Your task to perform on an android device: see creations saved in the google photos Image 0: 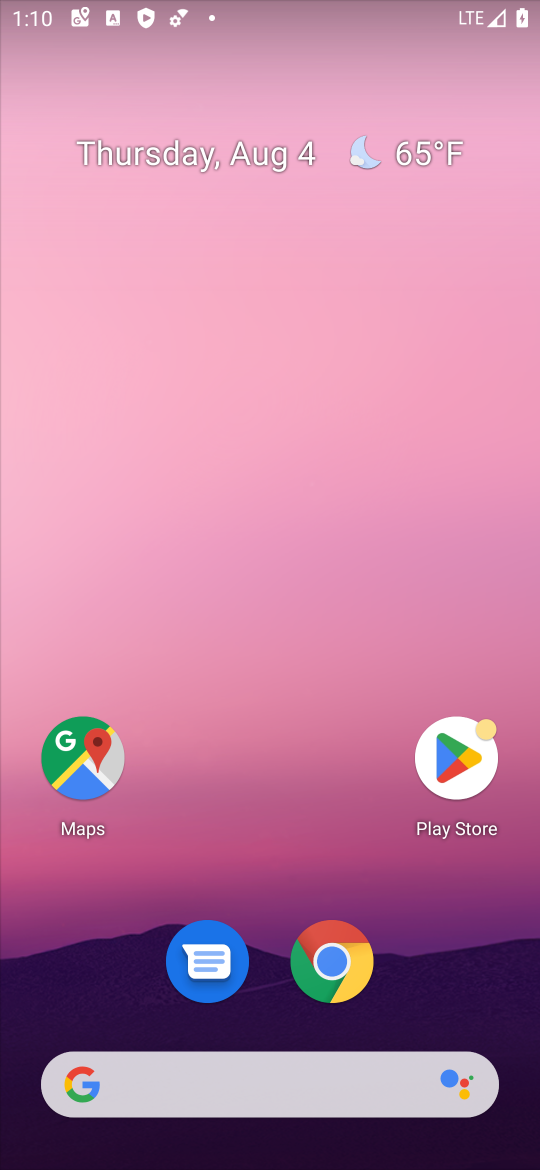
Step 0: drag from (290, 824) to (256, 50)
Your task to perform on an android device: see creations saved in the google photos Image 1: 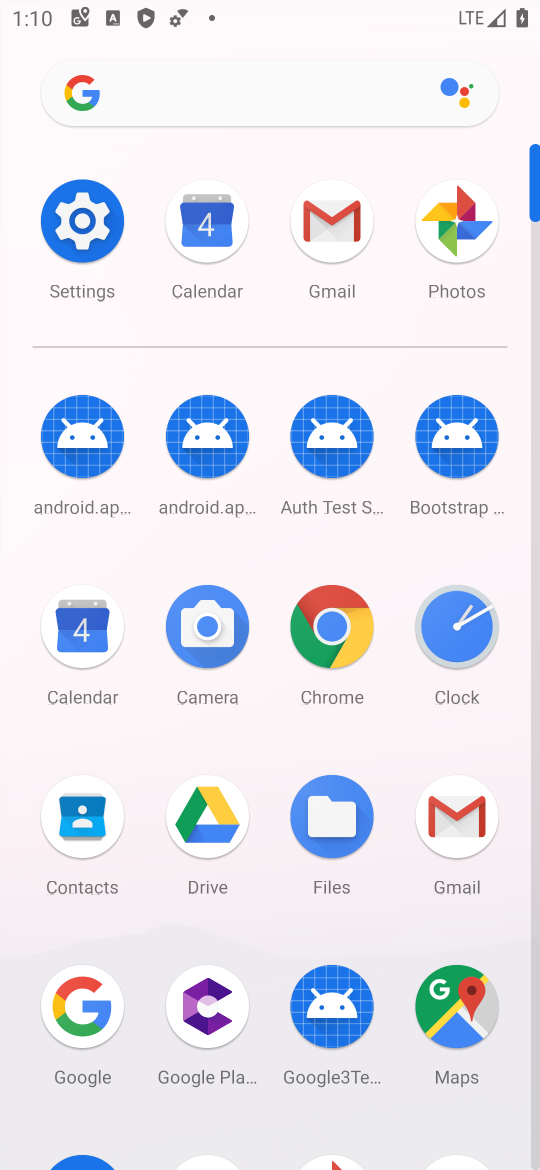
Step 1: click (449, 214)
Your task to perform on an android device: see creations saved in the google photos Image 2: 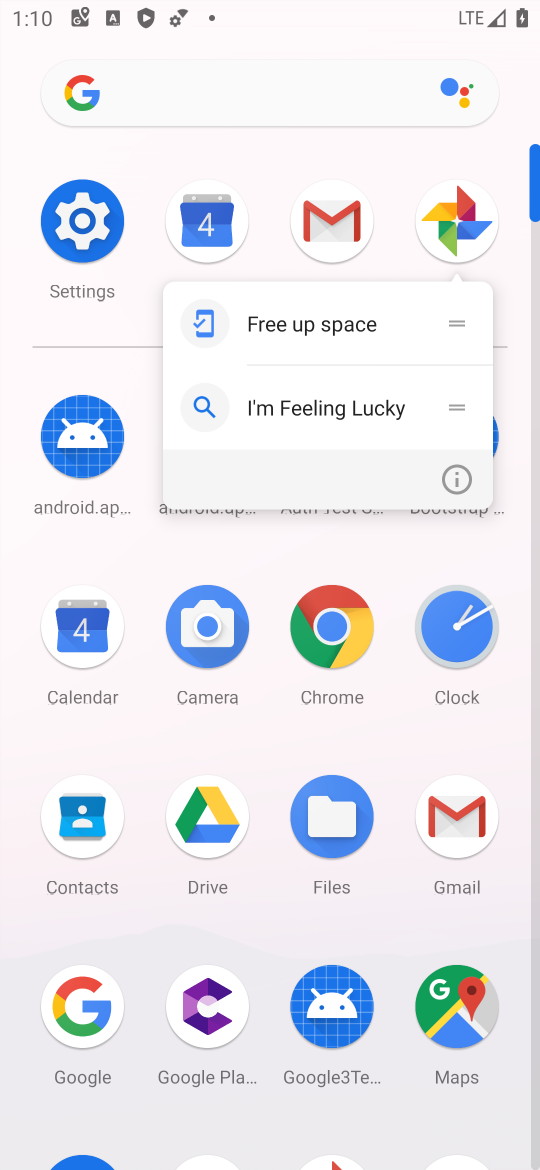
Step 2: click (447, 226)
Your task to perform on an android device: see creations saved in the google photos Image 3: 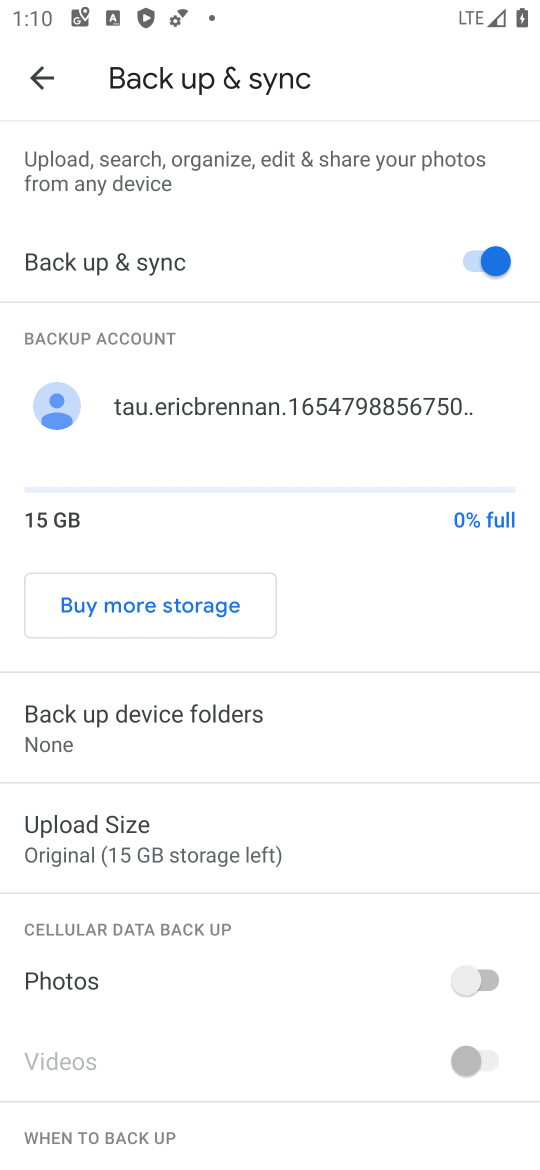
Step 3: click (38, 64)
Your task to perform on an android device: see creations saved in the google photos Image 4: 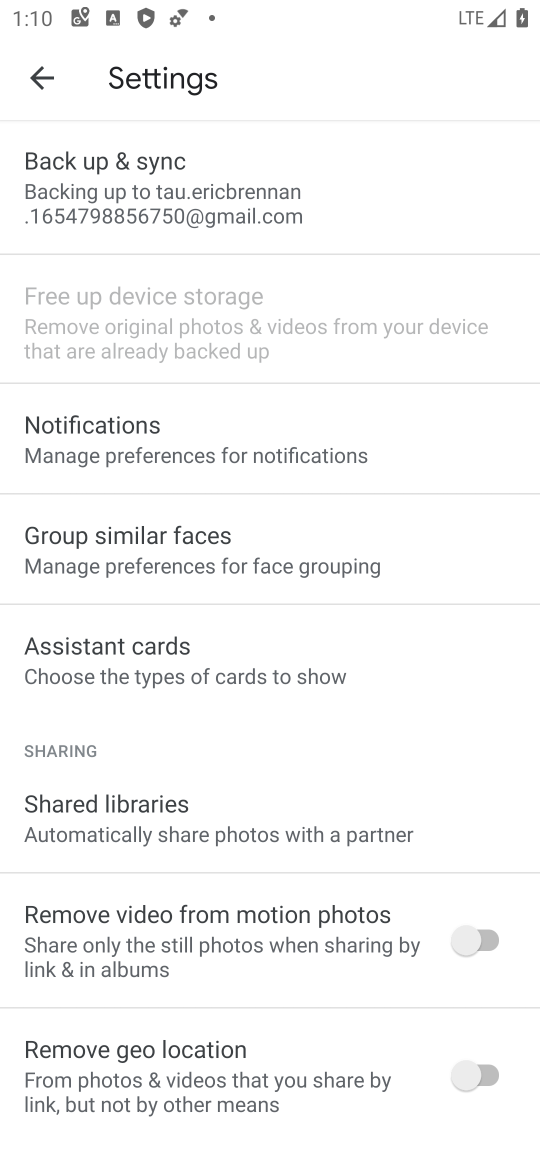
Step 4: click (38, 64)
Your task to perform on an android device: see creations saved in the google photos Image 5: 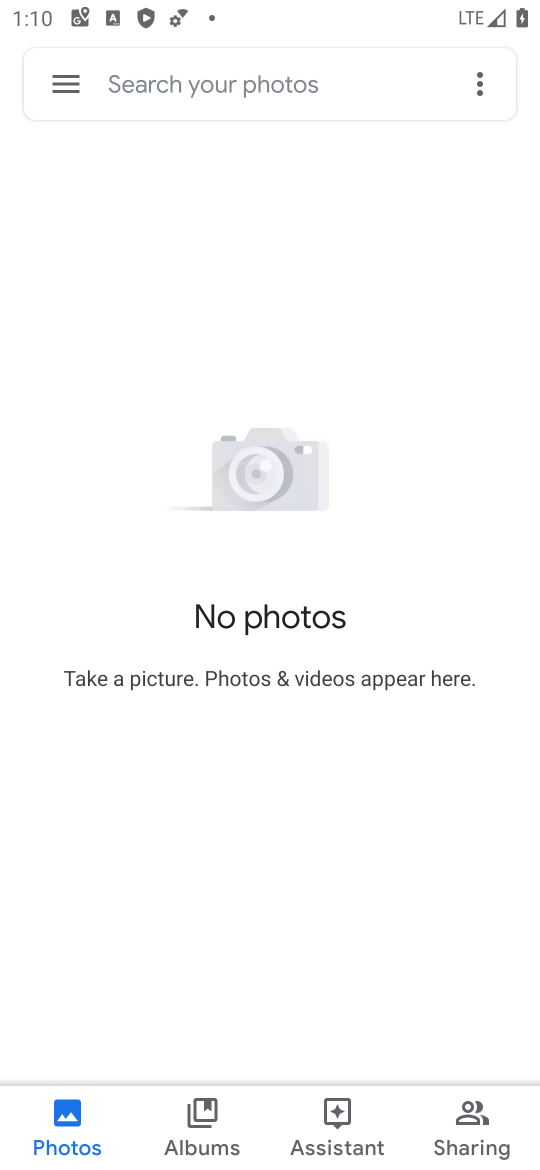
Step 5: click (148, 72)
Your task to perform on an android device: see creations saved in the google photos Image 6: 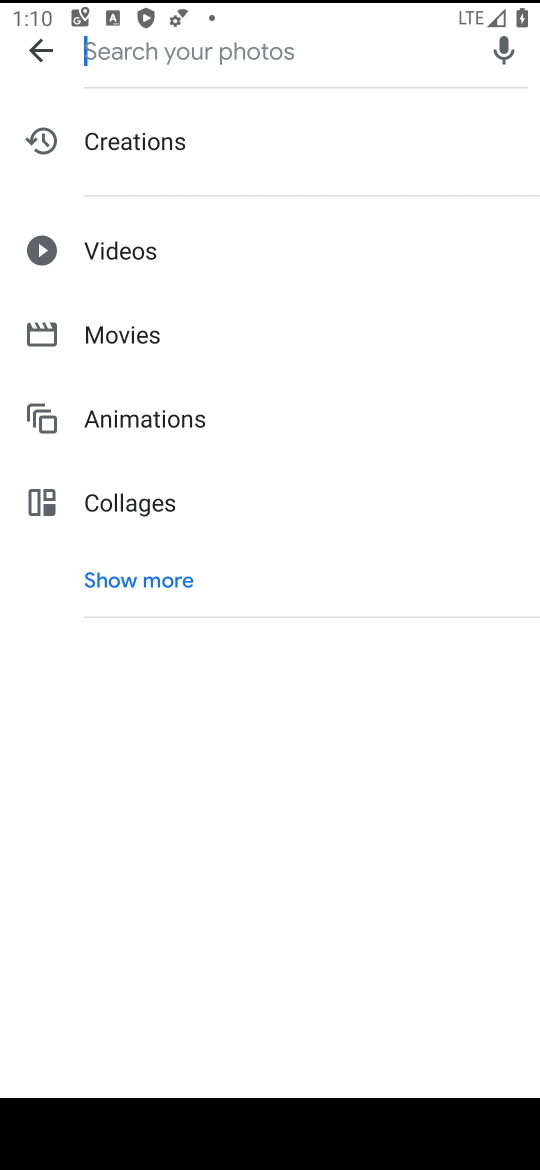
Step 6: click (140, 138)
Your task to perform on an android device: see creations saved in the google photos Image 7: 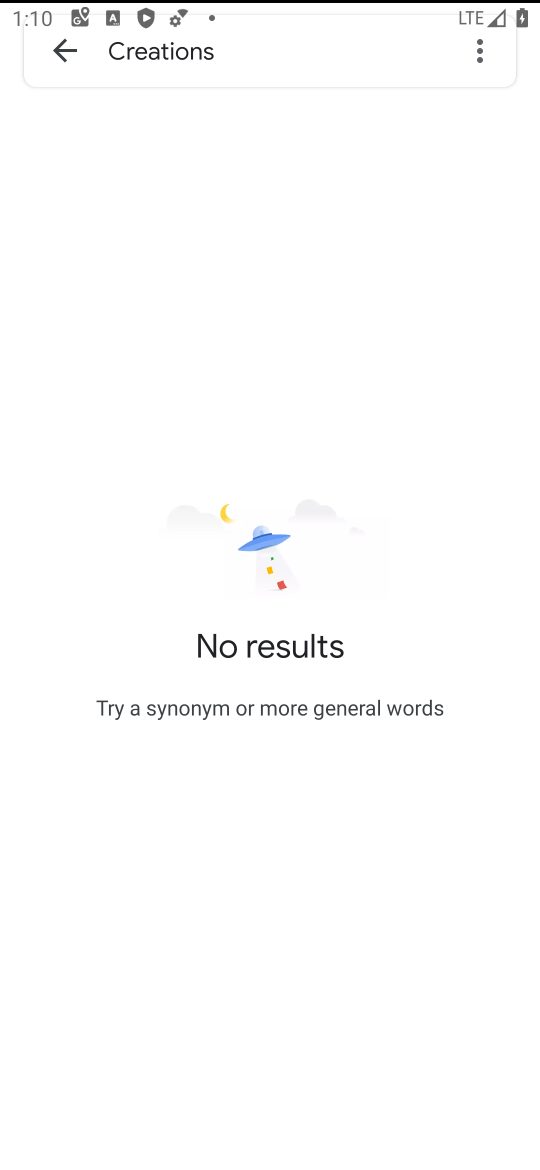
Step 7: task complete